Your task to perform on an android device: turn off location history Image 0: 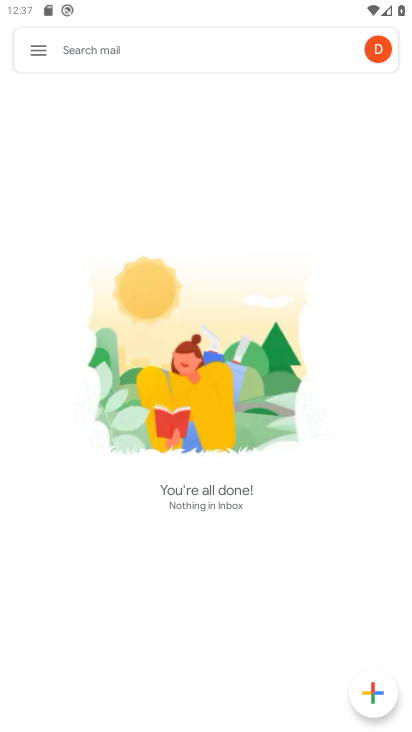
Step 0: press home button
Your task to perform on an android device: turn off location history Image 1: 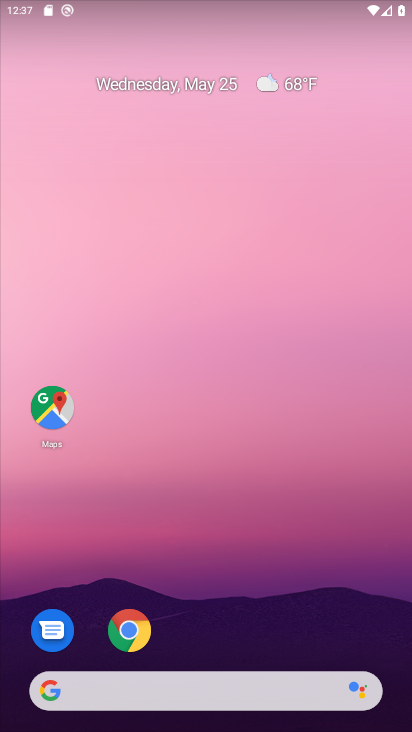
Step 1: drag from (199, 648) to (200, 200)
Your task to perform on an android device: turn off location history Image 2: 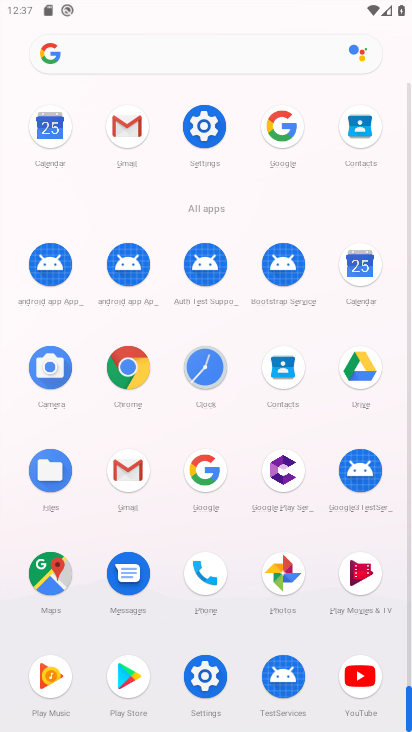
Step 2: click (200, 122)
Your task to perform on an android device: turn off location history Image 3: 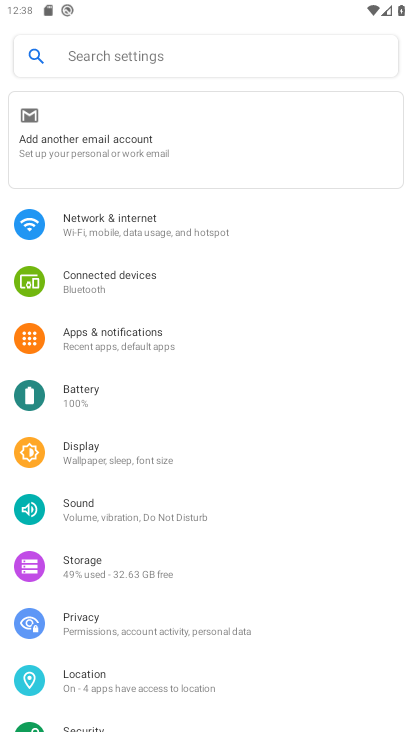
Step 3: click (134, 673)
Your task to perform on an android device: turn off location history Image 4: 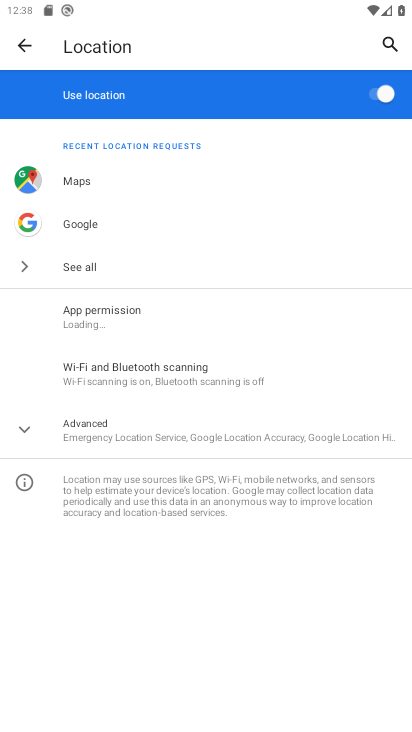
Step 4: click (170, 434)
Your task to perform on an android device: turn off location history Image 5: 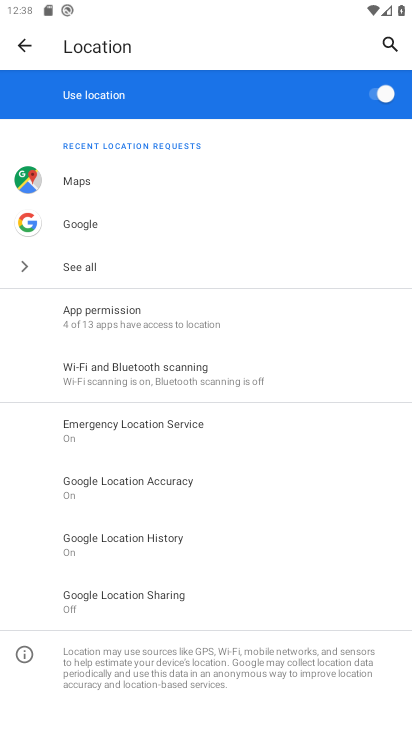
Step 5: click (190, 539)
Your task to perform on an android device: turn off location history Image 6: 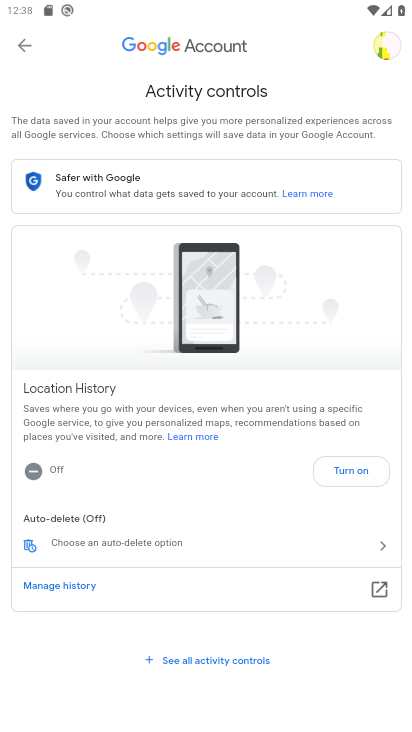
Step 6: task complete